Your task to perform on an android device: turn on showing notifications on the lock screen Image 0: 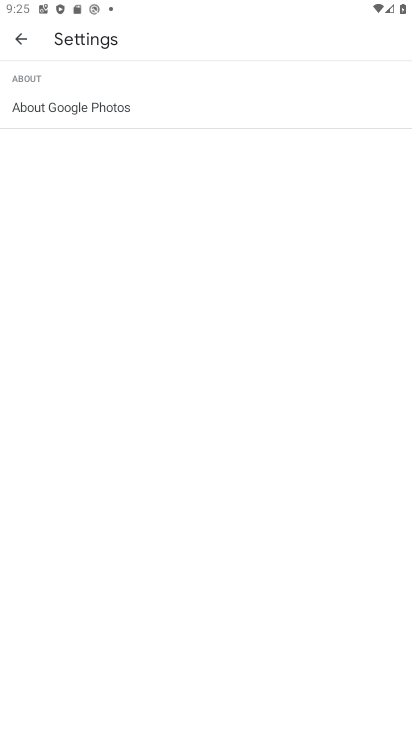
Step 0: press home button
Your task to perform on an android device: turn on showing notifications on the lock screen Image 1: 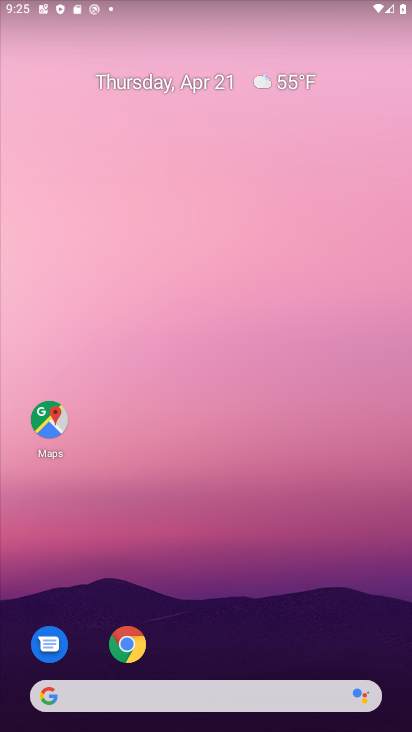
Step 1: drag from (267, 569) to (285, 78)
Your task to perform on an android device: turn on showing notifications on the lock screen Image 2: 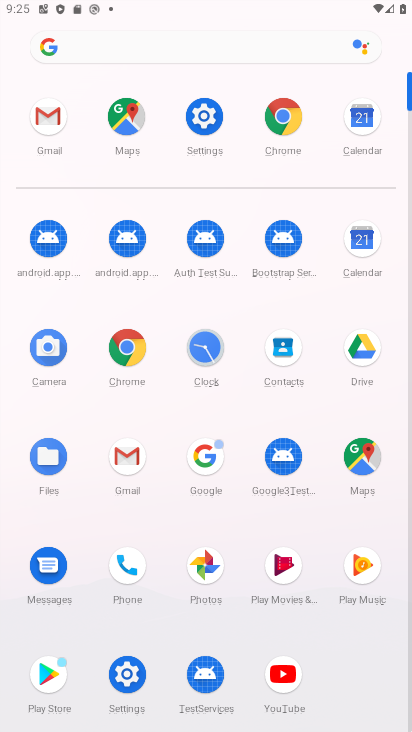
Step 2: click (124, 675)
Your task to perform on an android device: turn on showing notifications on the lock screen Image 3: 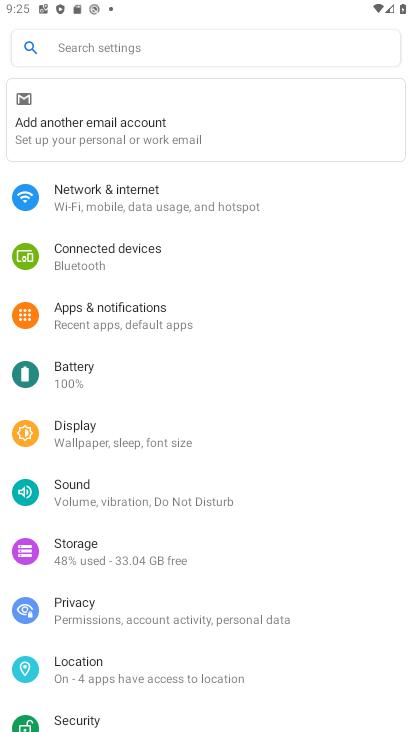
Step 3: click (157, 322)
Your task to perform on an android device: turn on showing notifications on the lock screen Image 4: 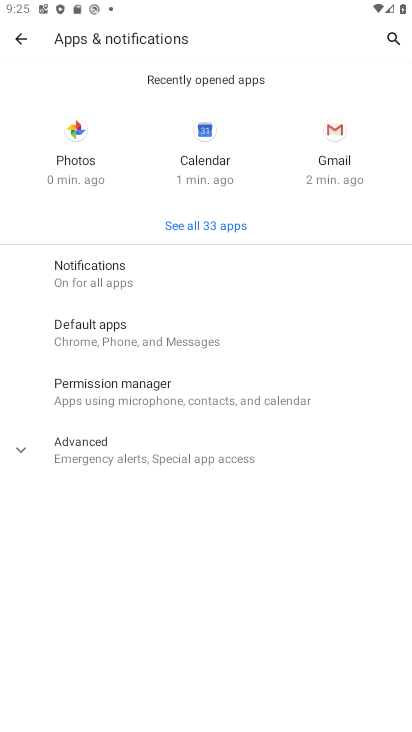
Step 4: click (114, 275)
Your task to perform on an android device: turn on showing notifications on the lock screen Image 5: 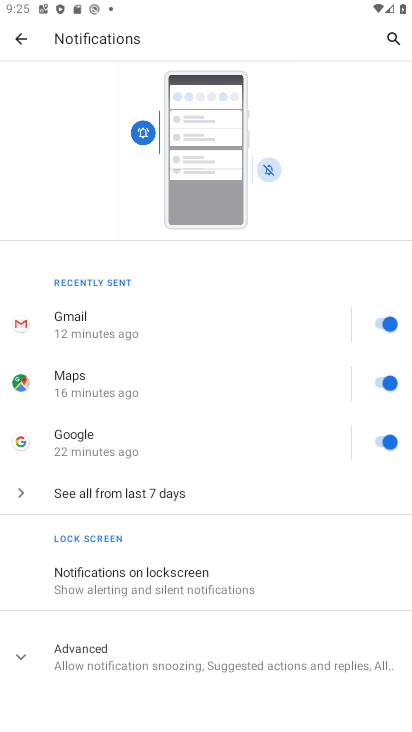
Step 5: click (167, 574)
Your task to perform on an android device: turn on showing notifications on the lock screen Image 6: 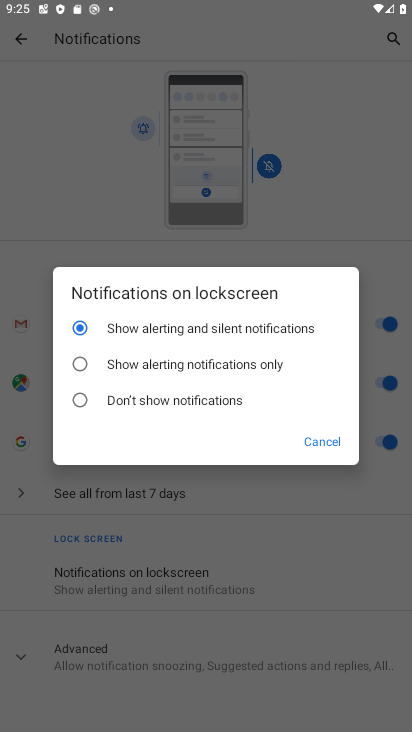
Step 6: task complete